Your task to perform on an android device: Open network settings Image 0: 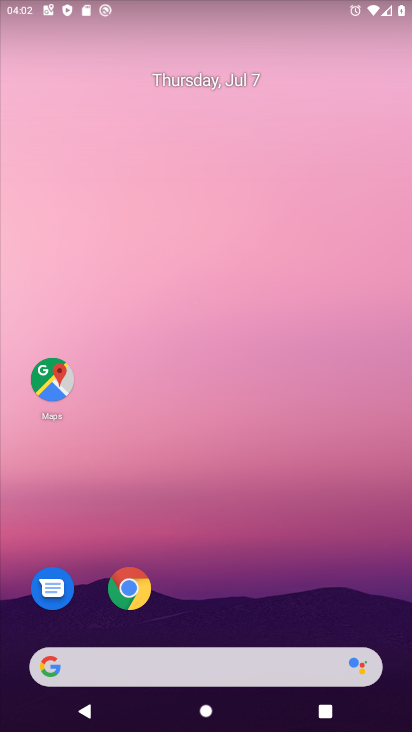
Step 0: drag from (161, 615) to (204, 208)
Your task to perform on an android device: Open network settings Image 1: 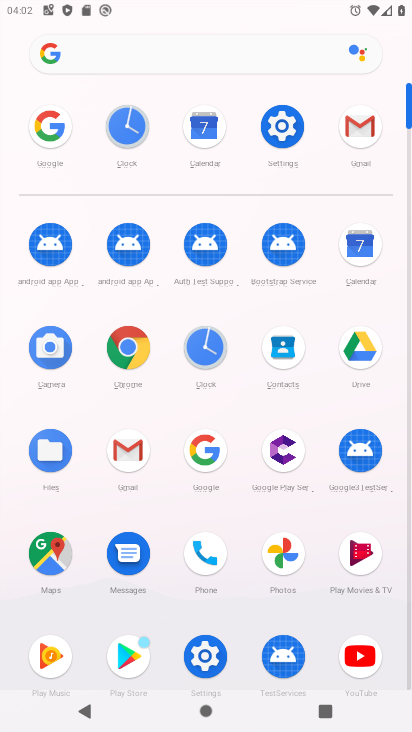
Step 1: click (282, 128)
Your task to perform on an android device: Open network settings Image 2: 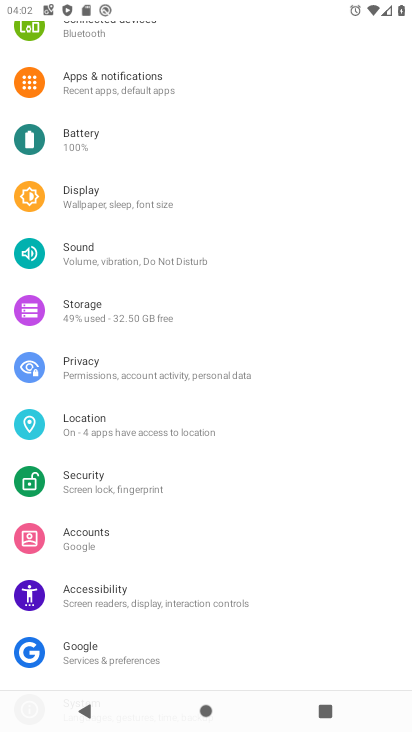
Step 2: drag from (102, 64) to (146, 505)
Your task to perform on an android device: Open network settings Image 3: 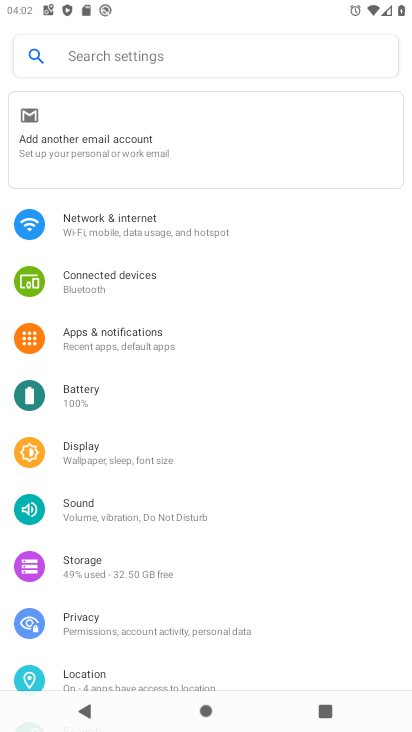
Step 3: click (102, 225)
Your task to perform on an android device: Open network settings Image 4: 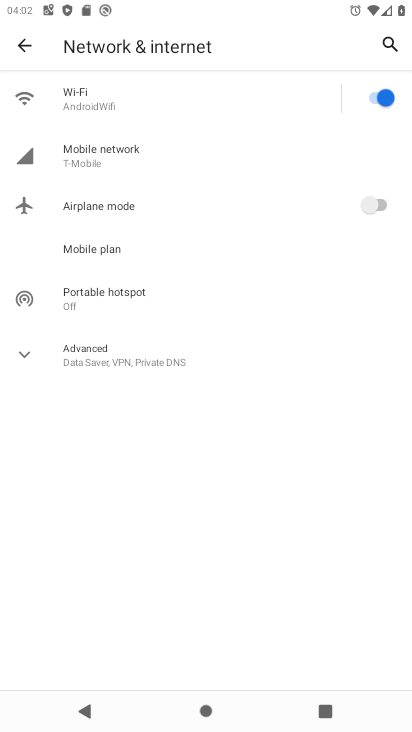
Step 4: click (102, 156)
Your task to perform on an android device: Open network settings Image 5: 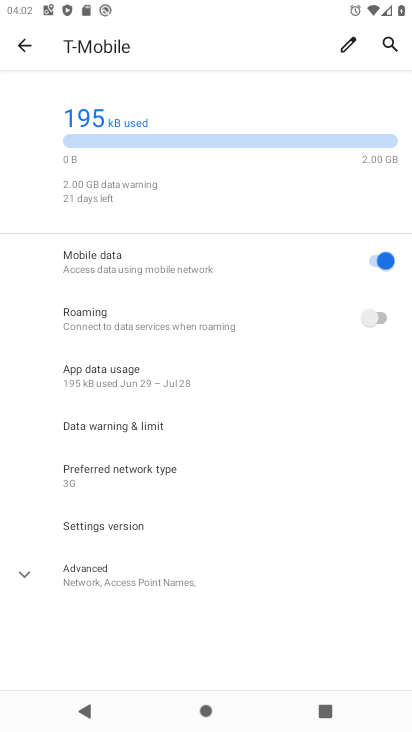
Step 5: click (80, 580)
Your task to perform on an android device: Open network settings Image 6: 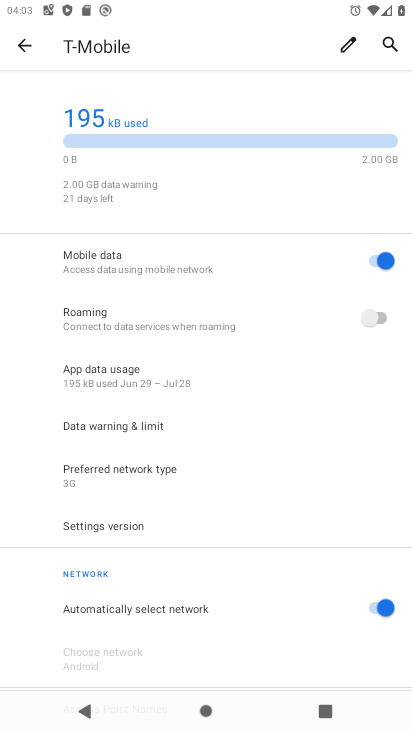
Step 6: task complete